Your task to perform on an android device: toggle notifications settings in the gmail app Image 0: 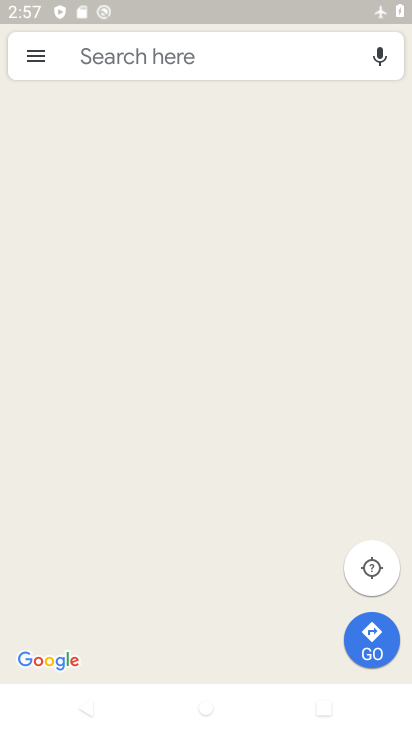
Step 0: press home button
Your task to perform on an android device: toggle notifications settings in the gmail app Image 1: 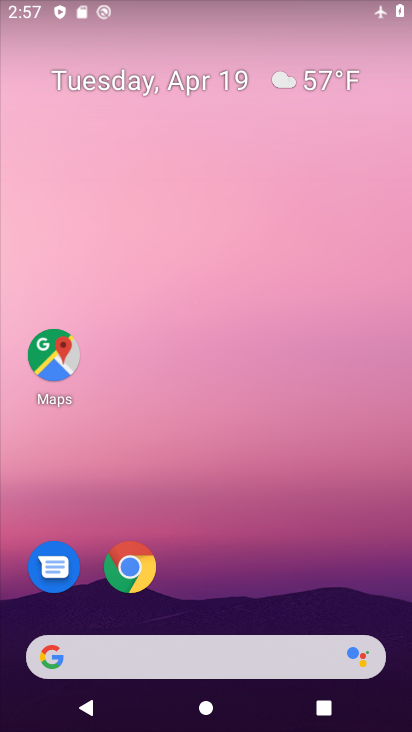
Step 1: drag from (381, 602) to (367, 147)
Your task to perform on an android device: toggle notifications settings in the gmail app Image 2: 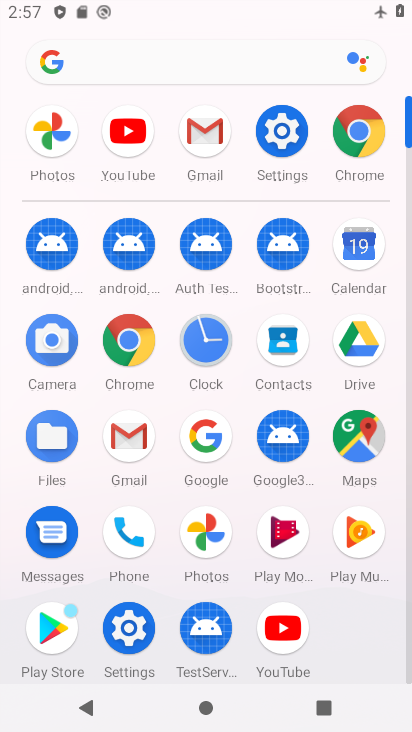
Step 2: click (128, 442)
Your task to perform on an android device: toggle notifications settings in the gmail app Image 3: 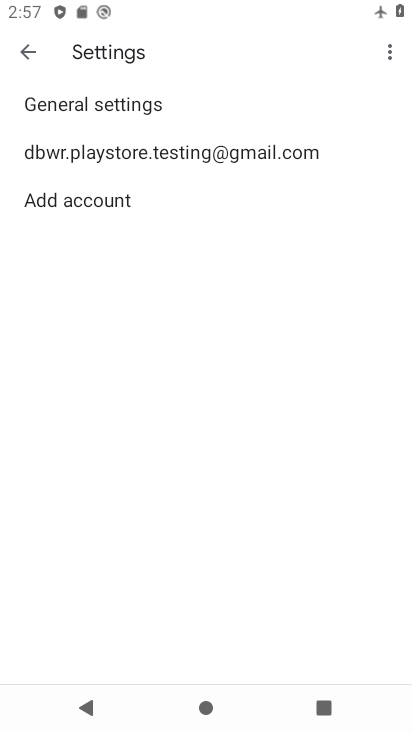
Step 3: click (212, 147)
Your task to perform on an android device: toggle notifications settings in the gmail app Image 4: 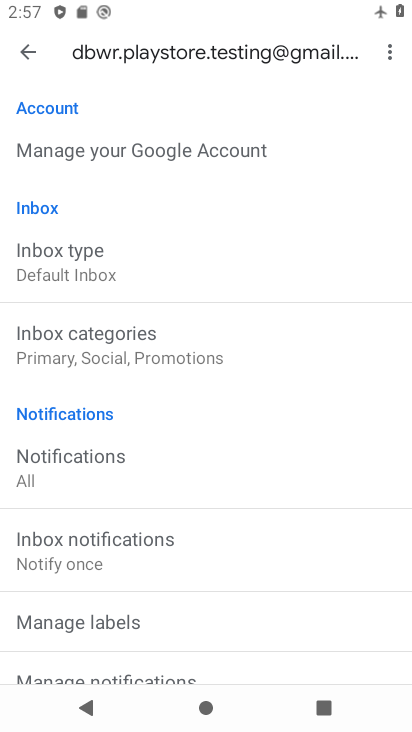
Step 4: drag from (299, 536) to (300, 367)
Your task to perform on an android device: toggle notifications settings in the gmail app Image 5: 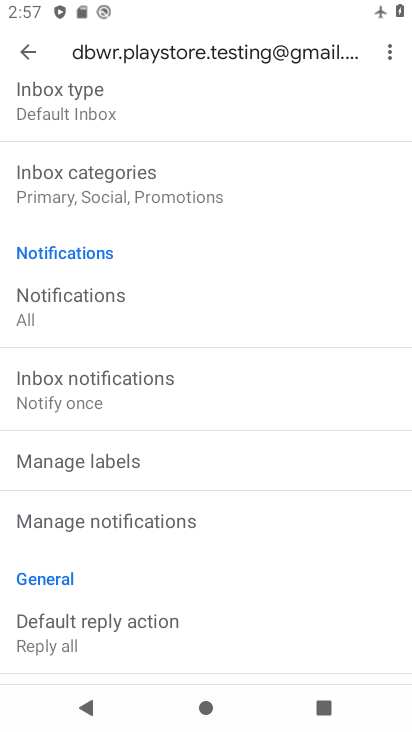
Step 5: drag from (306, 556) to (294, 339)
Your task to perform on an android device: toggle notifications settings in the gmail app Image 6: 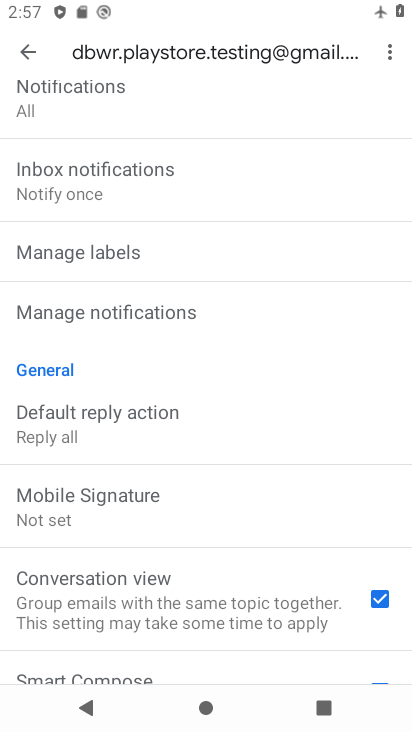
Step 6: drag from (300, 511) to (324, 332)
Your task to perform on an android device: toggle notifications settings in the gmail app Image 7: 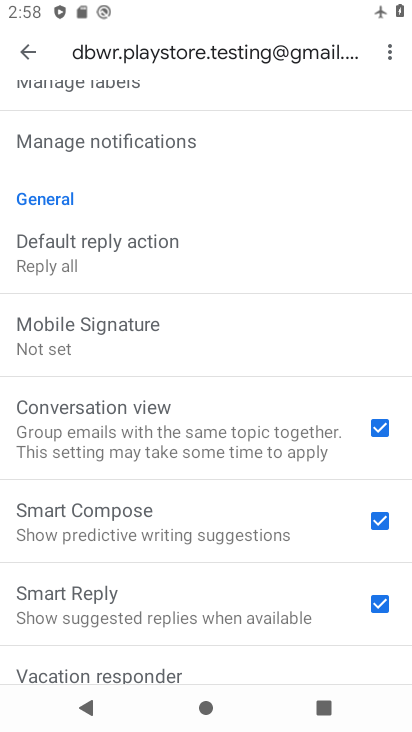
Step 7: drag from (289, 560) to (284, 289)
Your task to perform on an android device: toggle notifications settings in the gmail app Image 8: 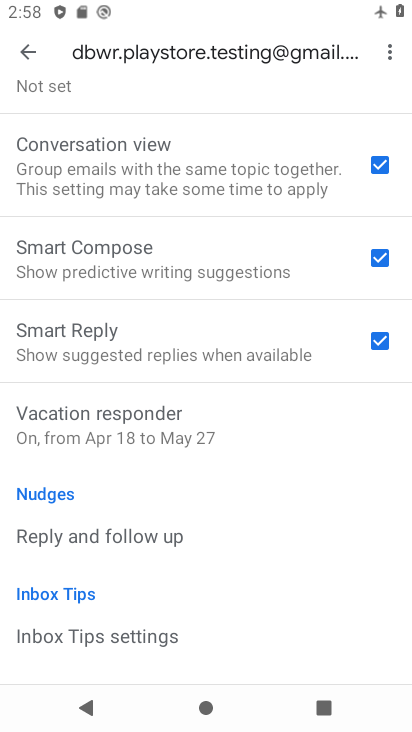
Step 8: drag from (293, 540) to (295, 355)
Your task to perform on an android device: toggle notifications settings in the gmail app Image 9: 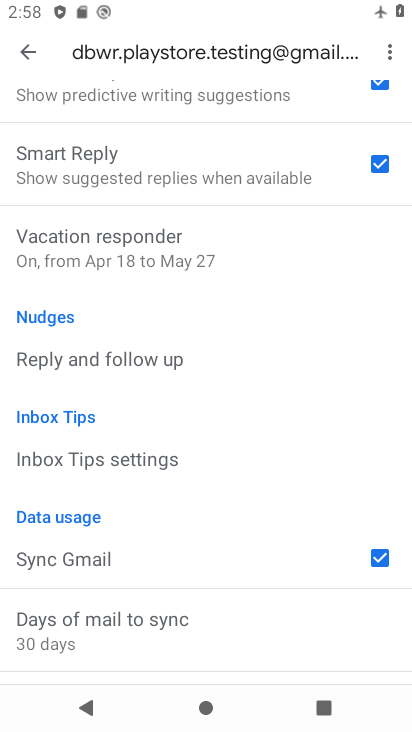
Step 9: drag from (278, 297) to (279, 503)
Your task to perform on an android device: toggle notifications settings in the gmail app Image 10: 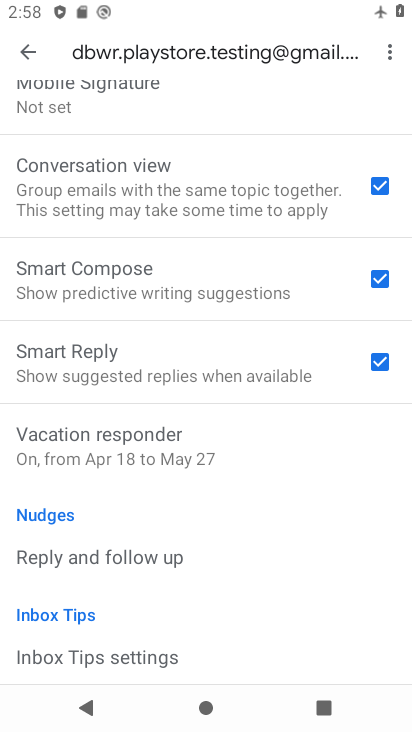
Step 10: drag from (283, 244) to (262, 485)
Your task to perform on an android device: toggle notifications settings in the gmail app Image 11: 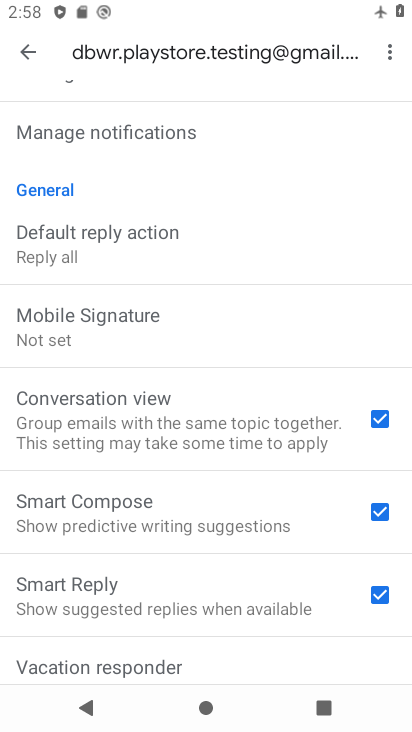
Step 11: drag from (274, 191) to (239, 406)
Your task to perform on an android device: toggle notifications settings in the gmail app Image 12: 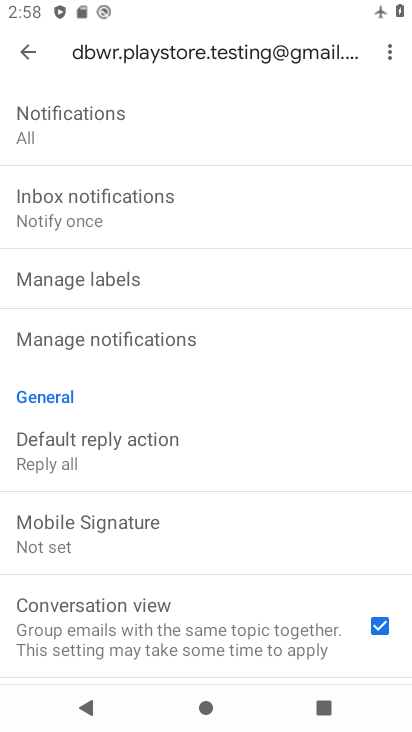
Step 12: click (182, 342)
Your task to perform on an android device: toggle notifications settings in the gmail app Image 13: 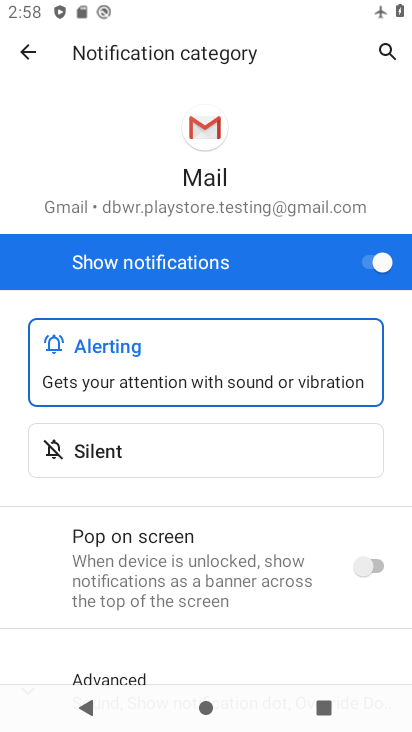
Step 13: click (373, 259)
Your task to perform on an android device: toggle notifications settings in the gmail app Image 14: 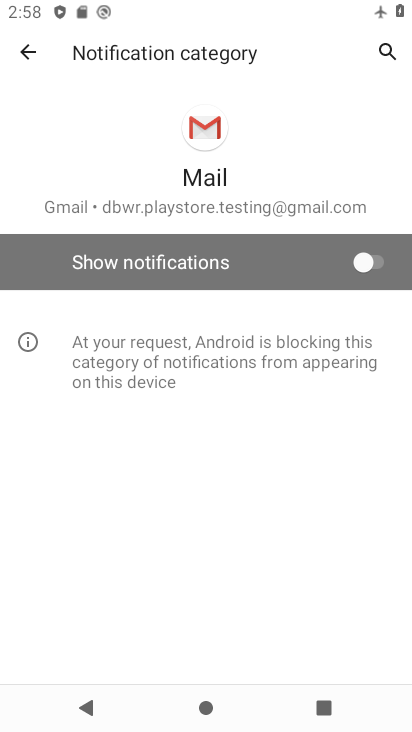
Step 14: task complete